Your task to perform on an android device: check the backup settings in the google photos Image 0: 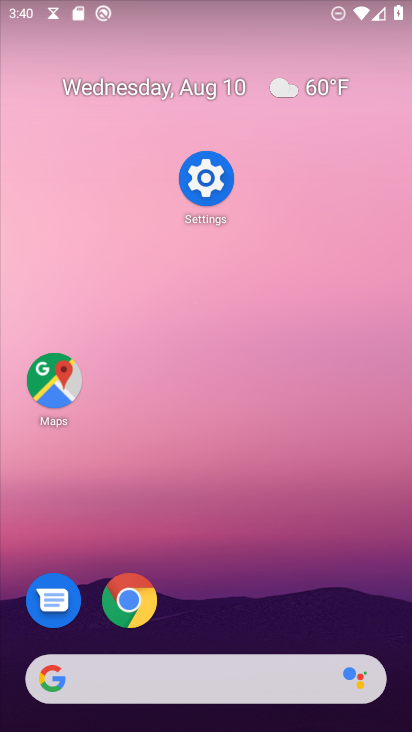
Step 0: press home button
Your task to perform on an android device: check the backup settings in the google photos Image 1: 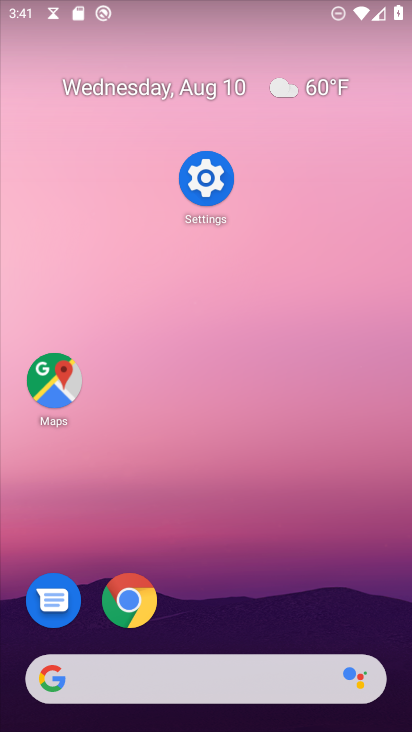
Step 1: drag from (264, 639) to (264, 11)
Your task to perform on an android device: check the backup settings in the google photos Image 2: 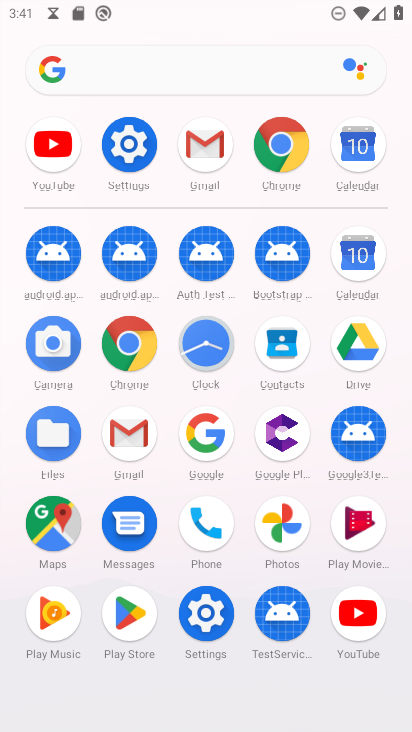
Step 2: click (285, 524)
Your task to perform on an android device: check the backup settings in the google photos Image 3: 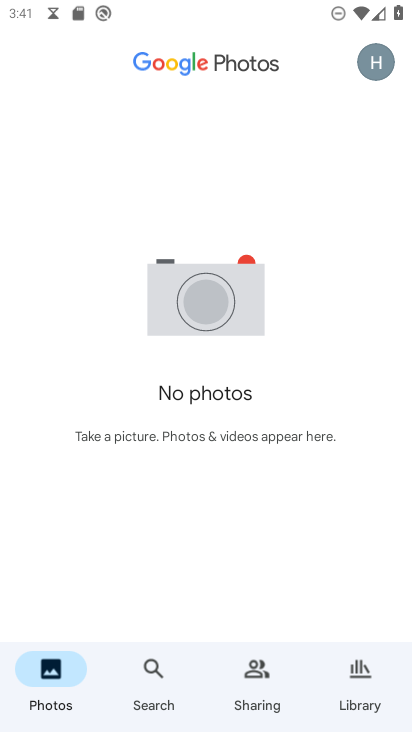
Step 3: click (386, 59)
Your task to perform on an android device: check the backup settings in the google photos Image 4: 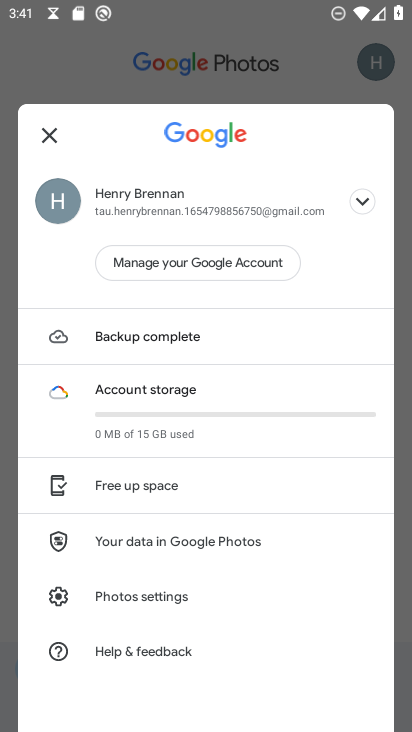
Step 4: click (138, 598)
Your task to perform on an android device: check the backup settings in the google photos Image 5: 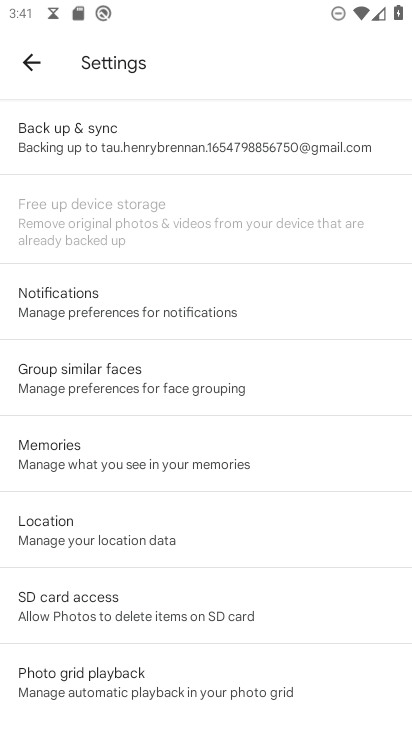
Step 5: click (107, 124)
Your task to perform on an android device: check the backup settings in the google photos Image 6: 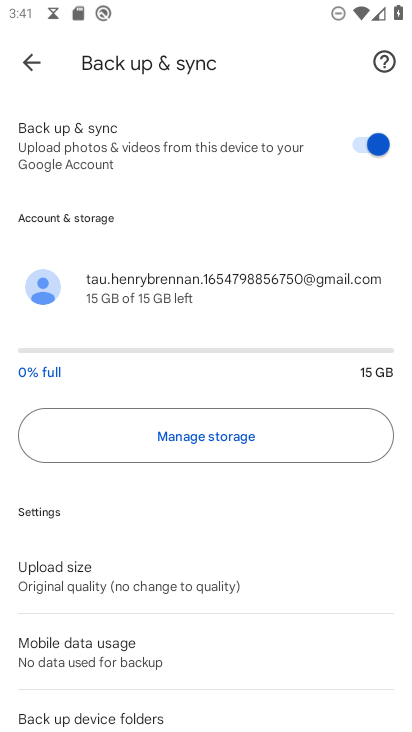
Step 6: task complete